Your task to perform on an android device: Go to ESPN.com Image 0: 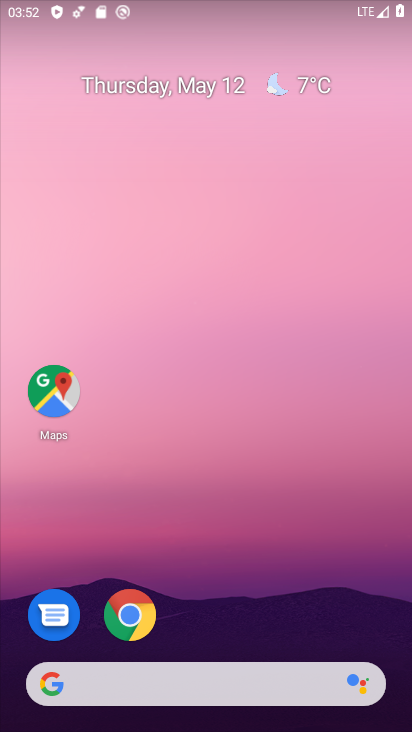
Step 0: click (129, 596)
Your task to perform on an android device: Go to ESPN.com Image 1: 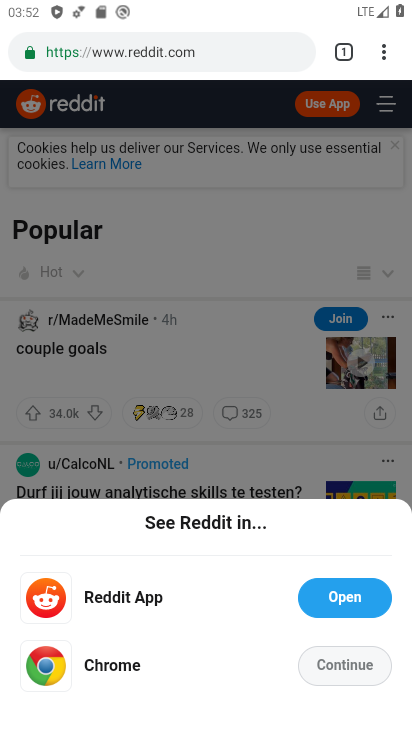
Step 1: click (151, 284)
Your task to perform on an android device: Go to ESPN.com Image 2: 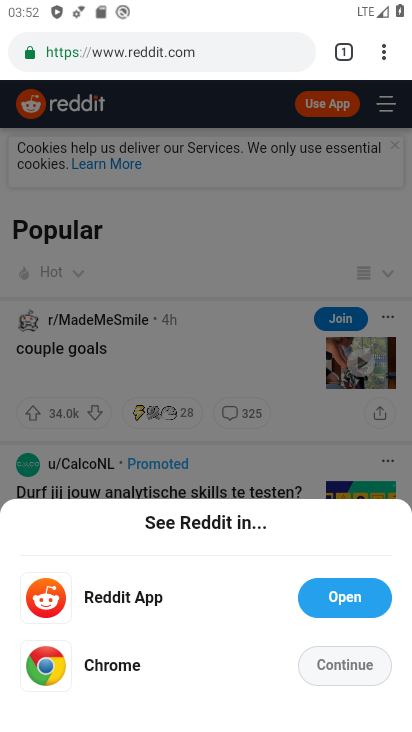
Step 2: click (351, 55)
Your task to perform on an android device: Go to ESPN.com Image 3: 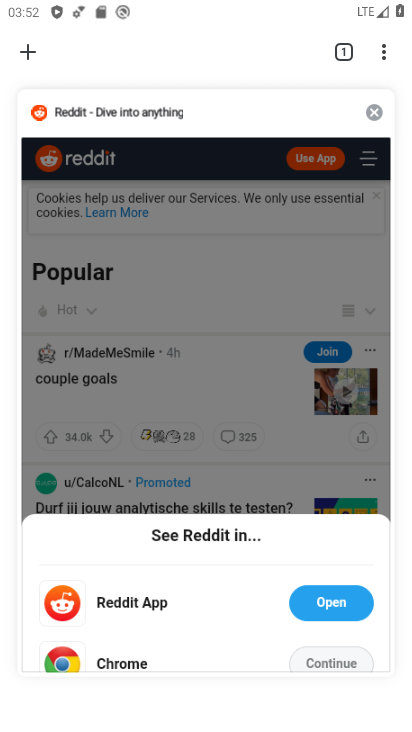
Step 3: click (368, 107)
Your task to perform on an android device: Go to ESPN.com Image 4: 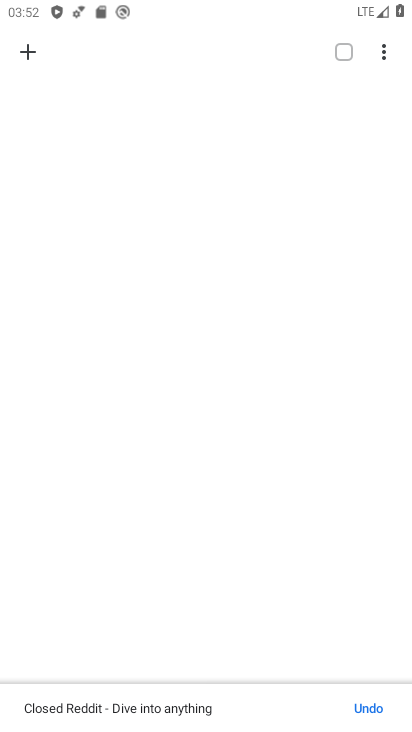
Step 4: click (35, 48)
Your task to perform on an android device: Go to ESPN.com Image 5: 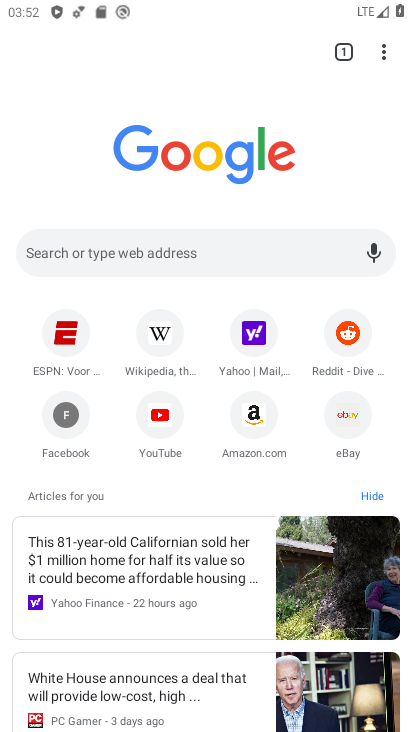
Step 5: click (66, 340)
Your task to perform on an android device: Go to ESPN.com Image 6: 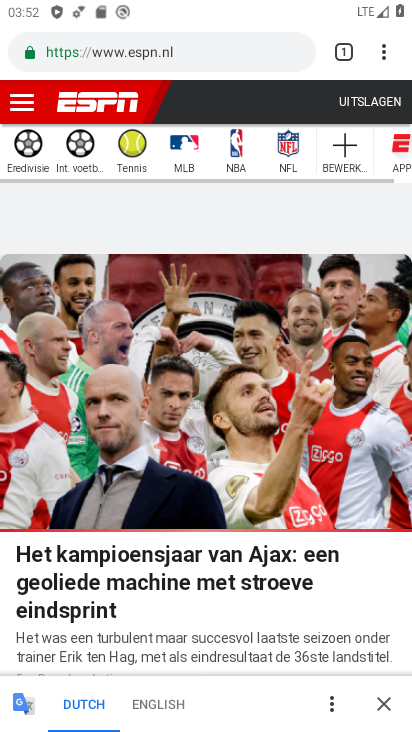
Step 6: task complete